Your task to perform on an android device: open the mobile data screen to see how much data has been used Image 0: 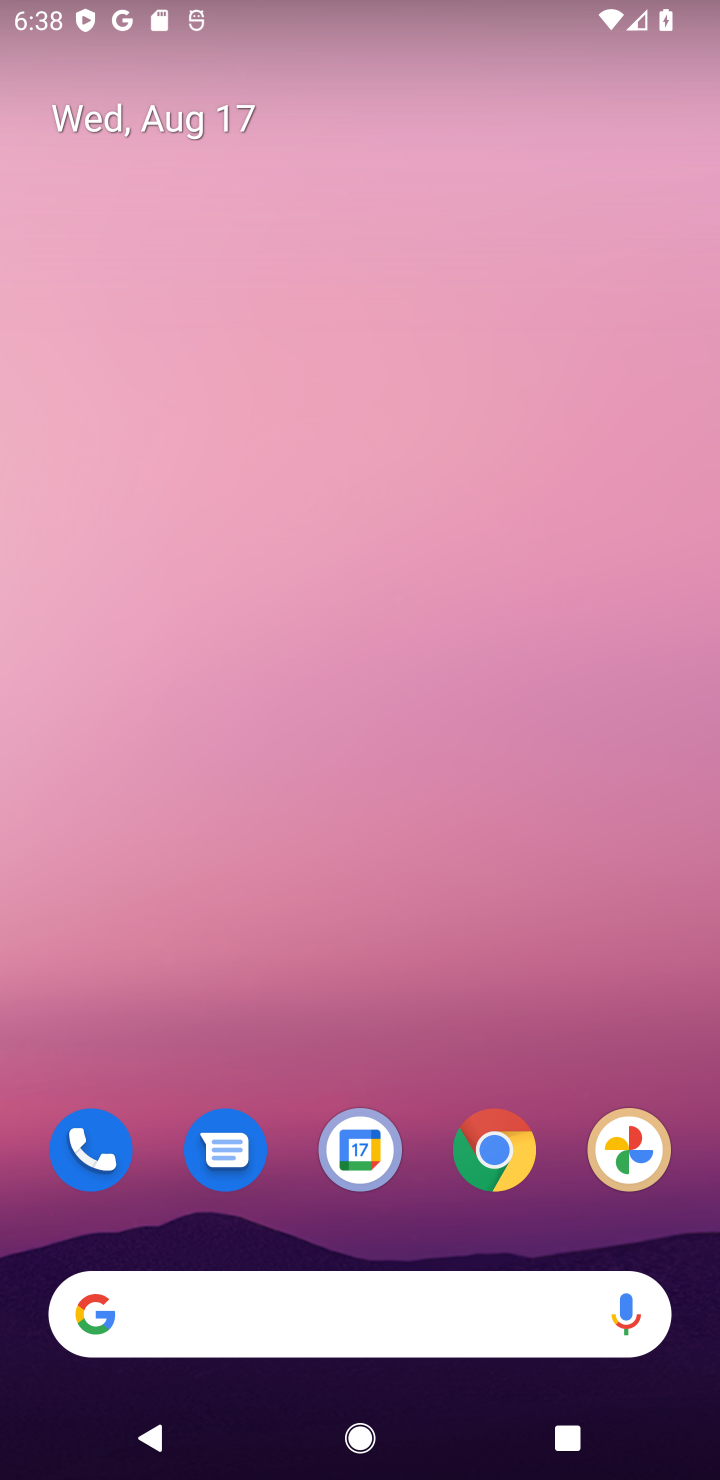
Step 0: drag from (399, 1245) to (412, 0)
Your task to perform on an android device: open the mobile data screen to see how much data has been used Image 1: 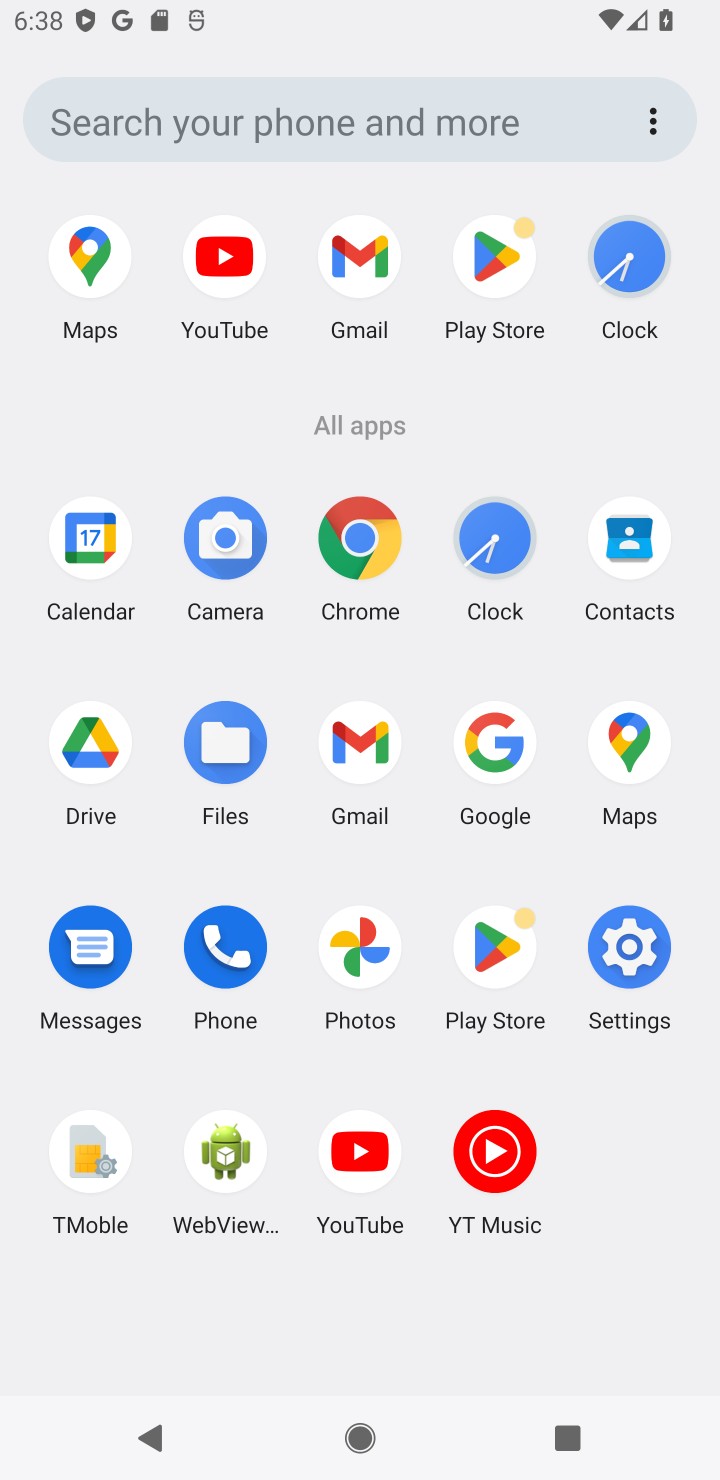
Step 1: click (612, 954)
Your task to perform on an android device: open the mobile data screen to see how much data has been used Image 2: 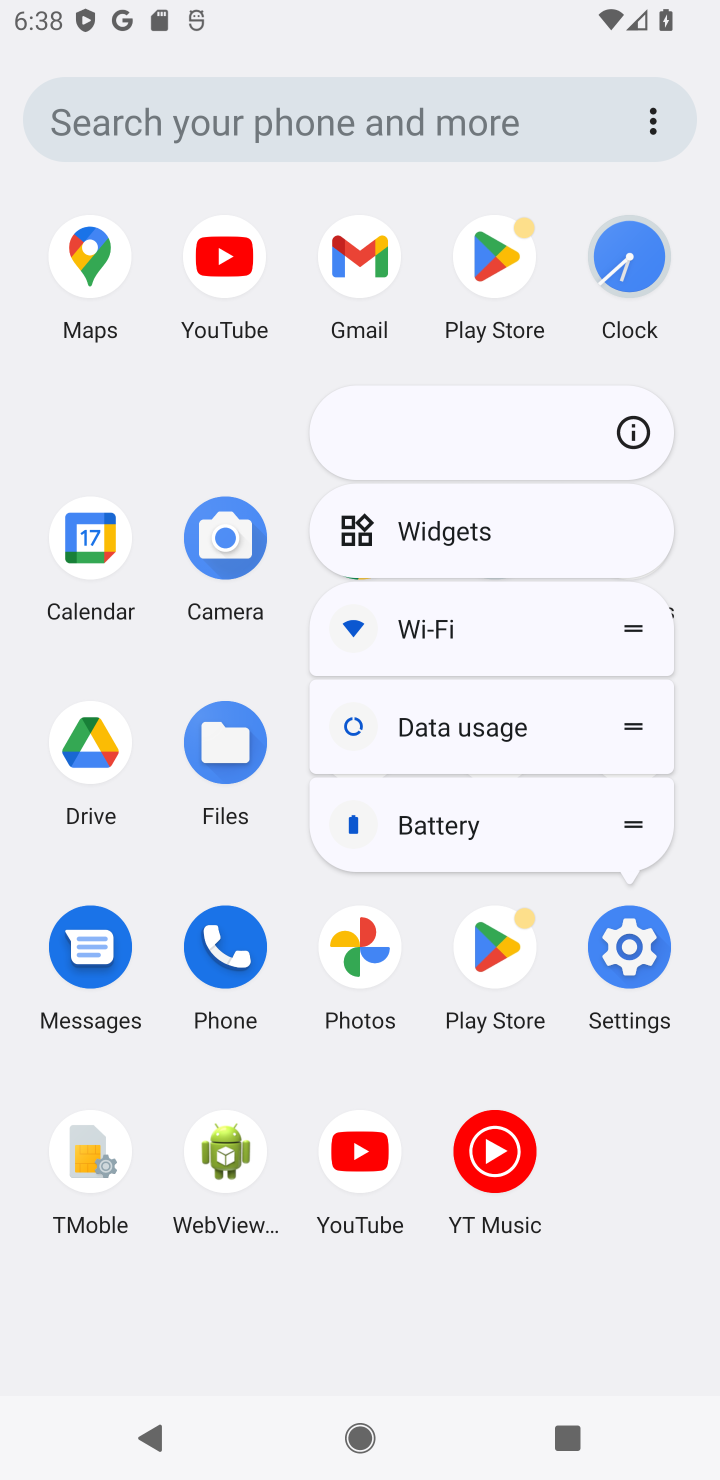
Step 2: click (608, 951)
Your task to perform on an android device: open the mobile data screen to see how much data has been used Image 3: 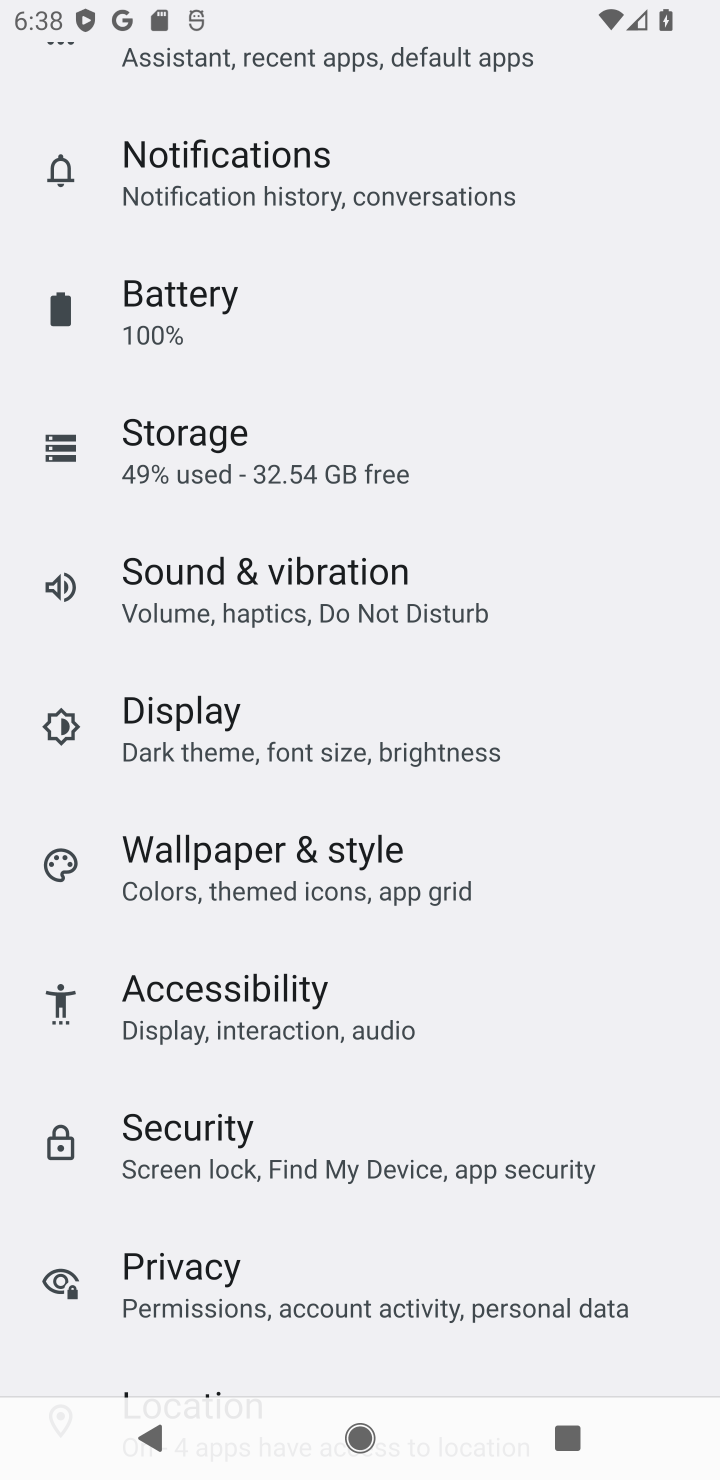
Step 3: drag from (310, 325) to (310, 1063)
Your task to perform on an android device: open the mobile data screen to see how much data has been used Image 4: 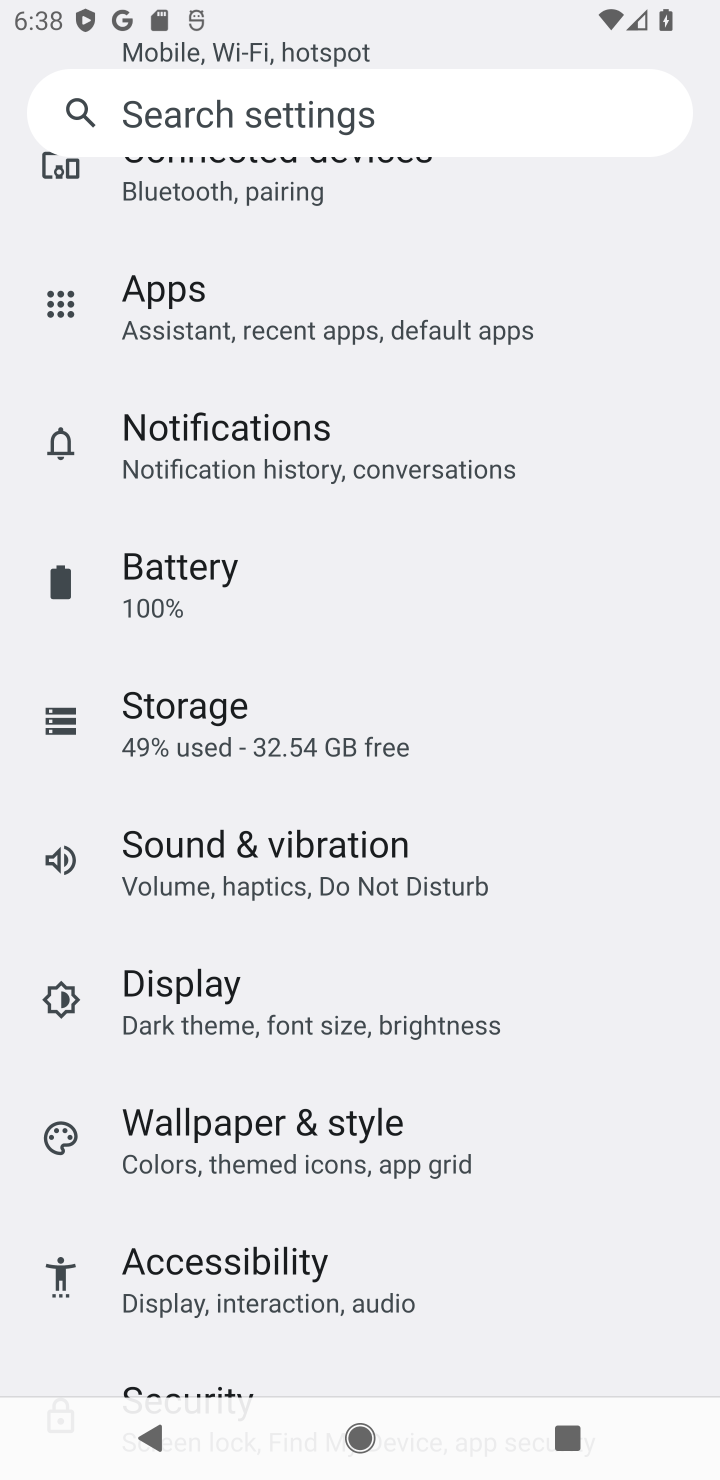
Step 4: drag from (292, 272) to (309, 1201)
Your task to perform on an android device: open the mobile data screen to see how much data has been used Image 5: 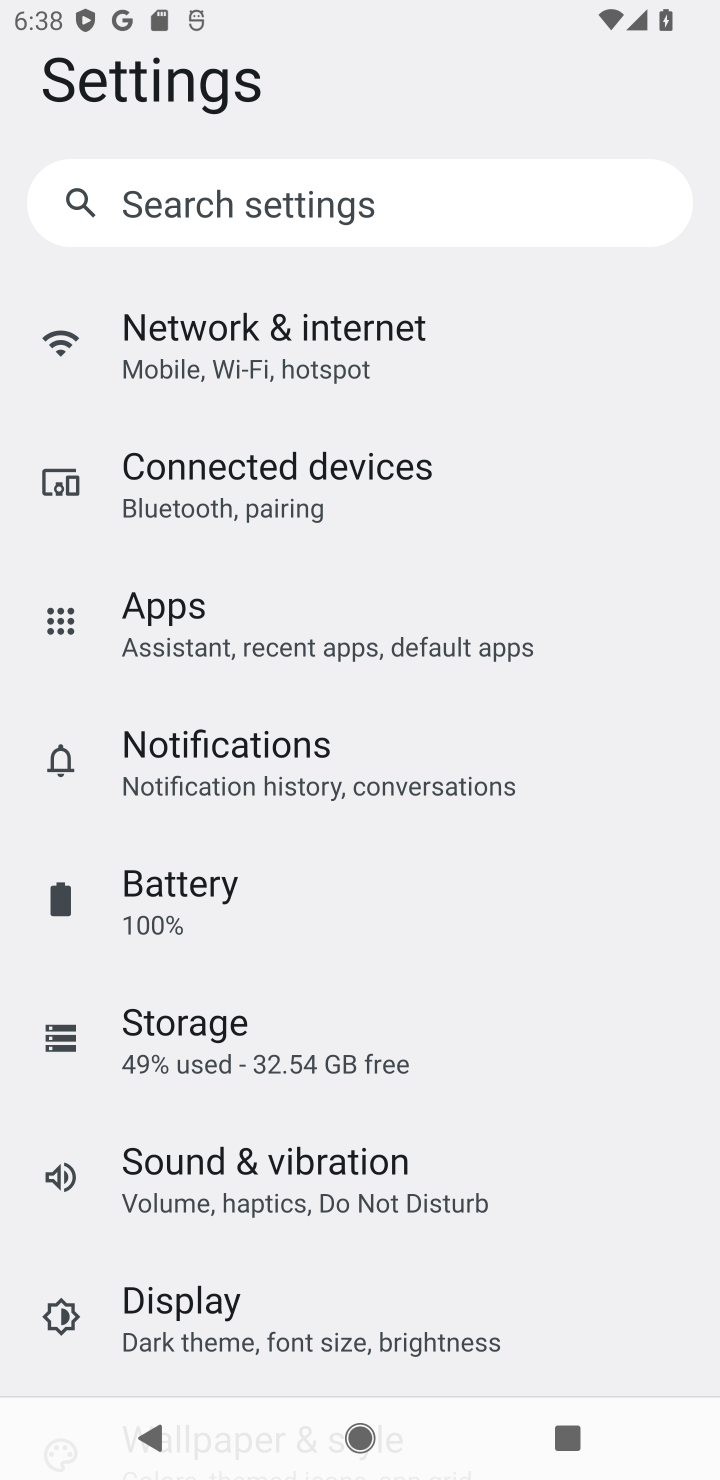
Step 5: click (300, 342)
Your task to perform on an android device: open the mobile data screen to see how much data has been used Image 6: 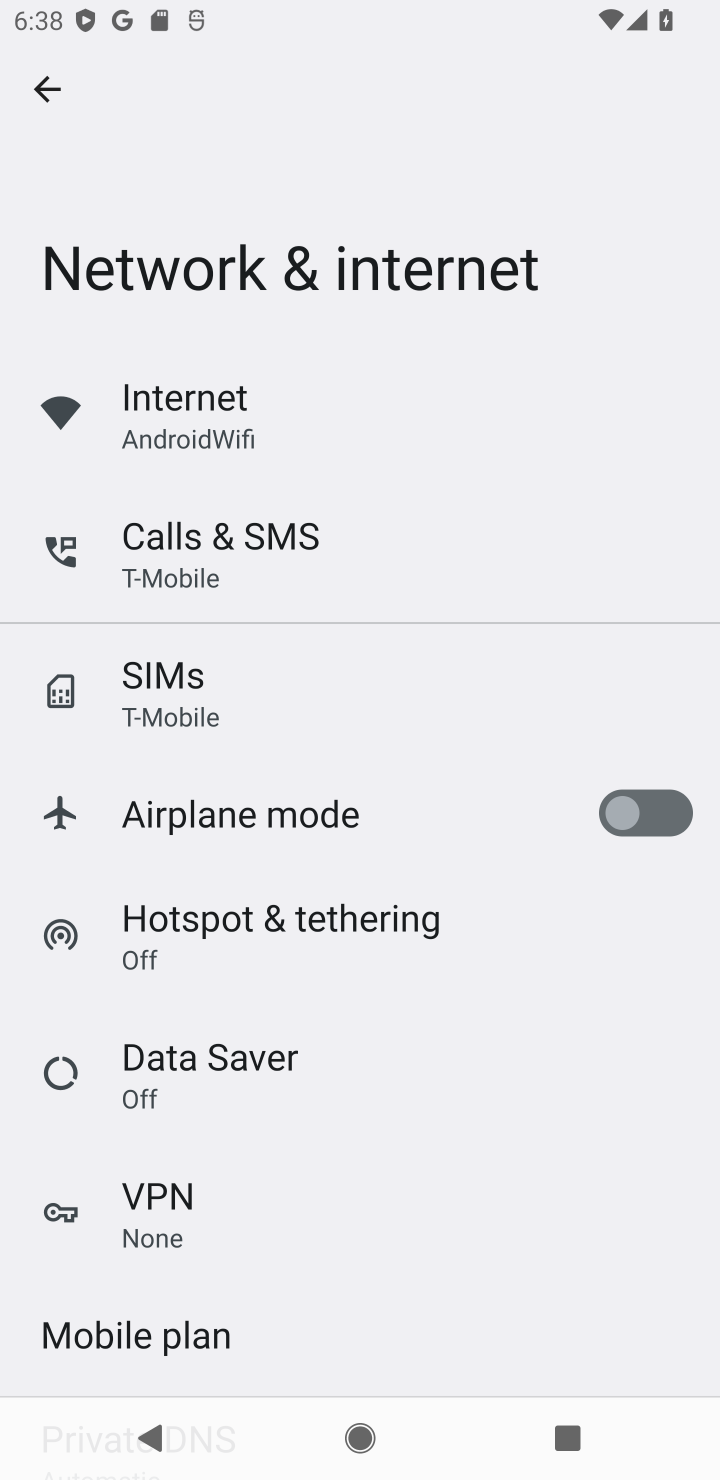
Step 6: click (210, 412)
Your task to perform on an android device: open the mobile data screen to see how much data has been used Image 7: 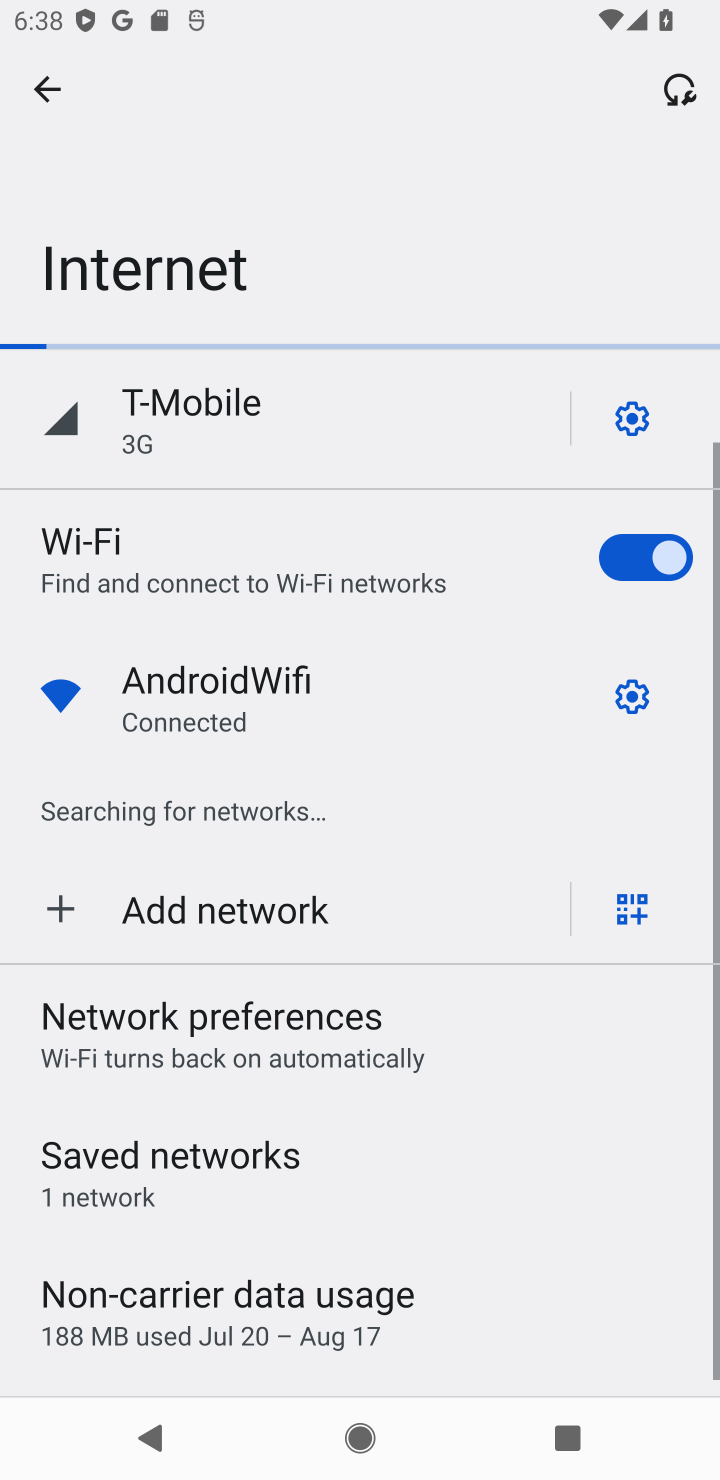
Step 7: click (131, 1325)
Your task to perform on an android device: open the mobile data screen to see how much data has been used Image 8: 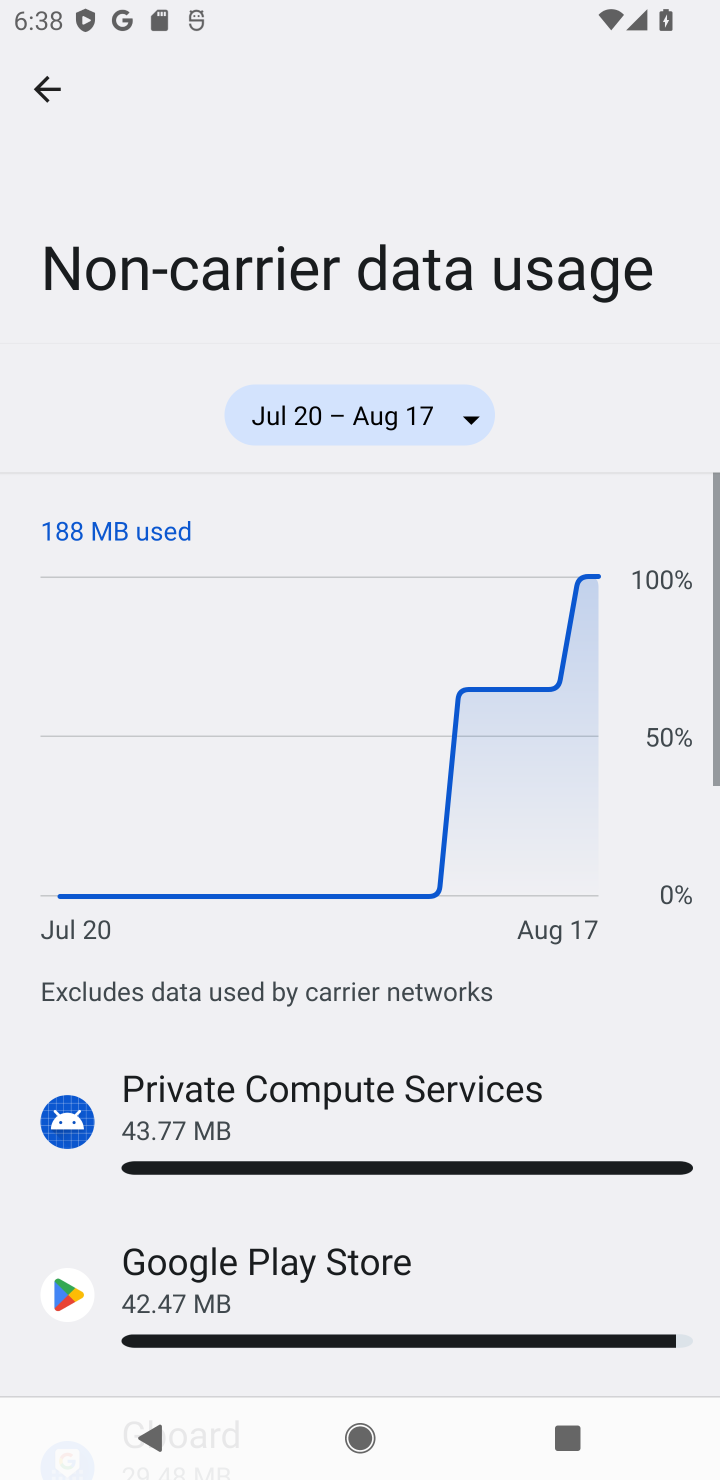
Step 8: task complete